Your task to perform on an android device: open app "Chime – Mobile Banking" (install if not already installed) Image 0: 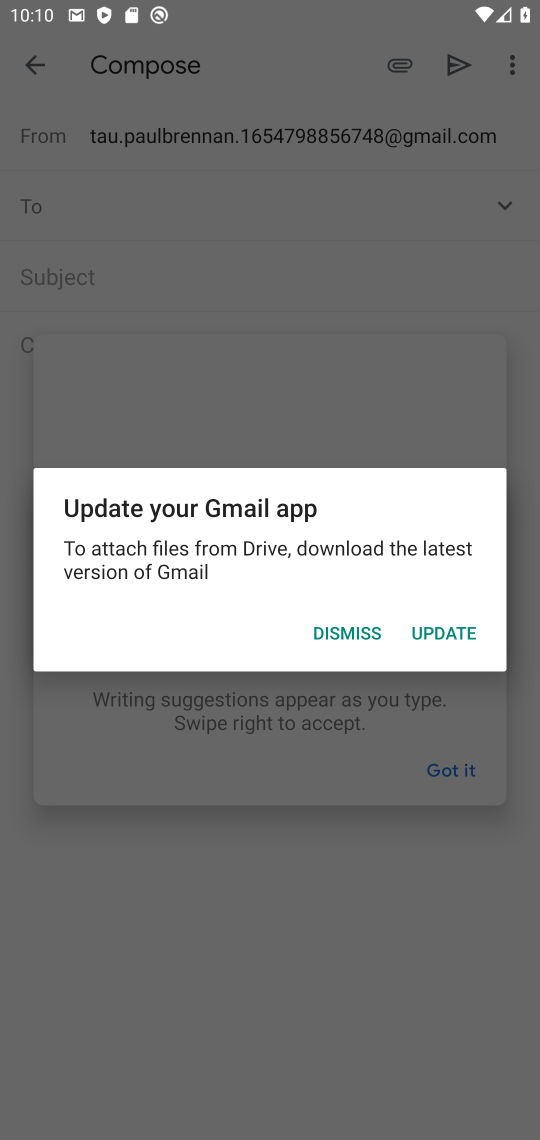
Step 0: press home button
Your task to perform on an android device: open app "Chime – Mobile Banking" (install if not already installed) Image 1: 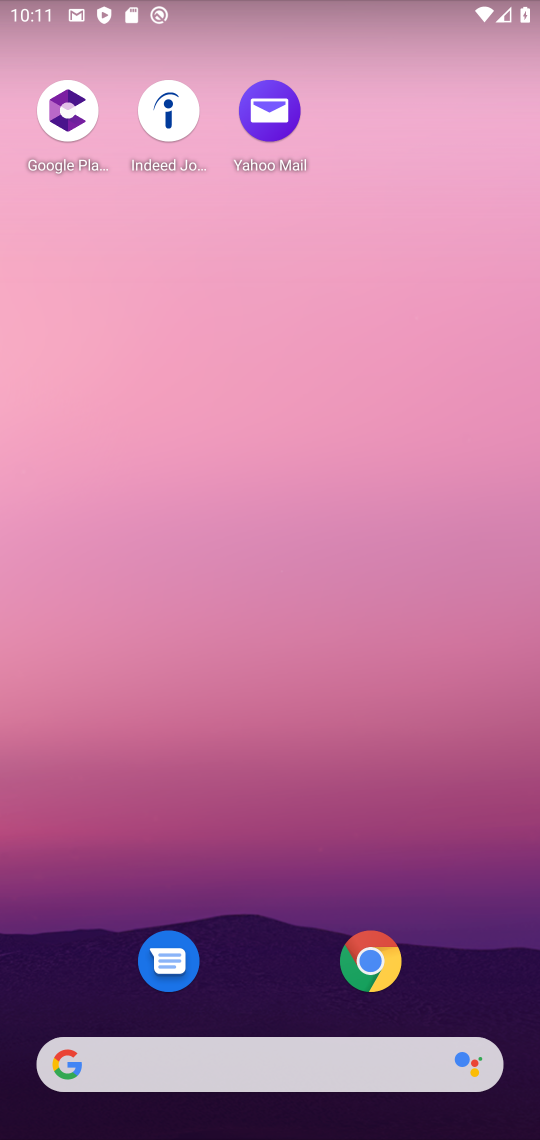
Step 1: drag from (246, 1071) to (245, 274)
Your task to perform on an android device: open app "Chime – Mobile Banking" (install if not already installed) Image 2: 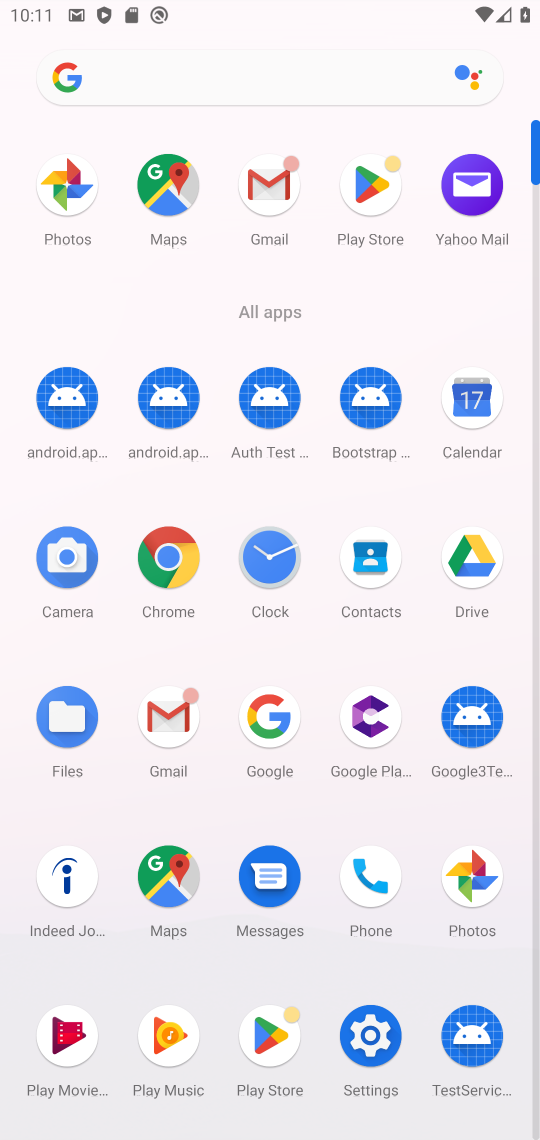
Step 2: click (280, 1027)
Your task to perform on an android device: open app "Chime – Mobile Banking" (install if not already installed) Image 3: 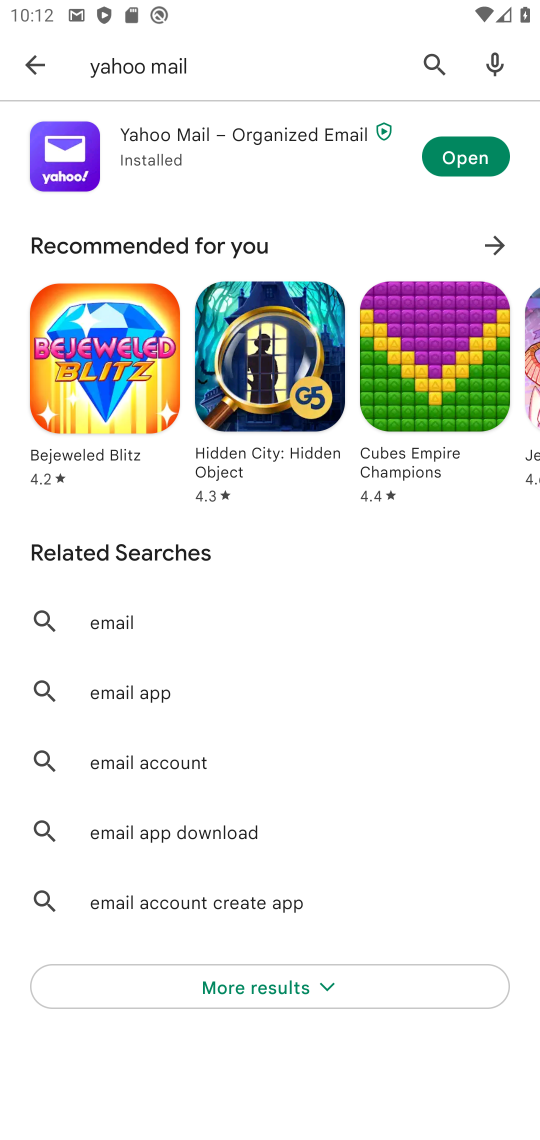
Step 3: click (428, 65)
Your task to perform on an android device: open app "Chime – Mobile Banking" (install if not already installed) Image 4: 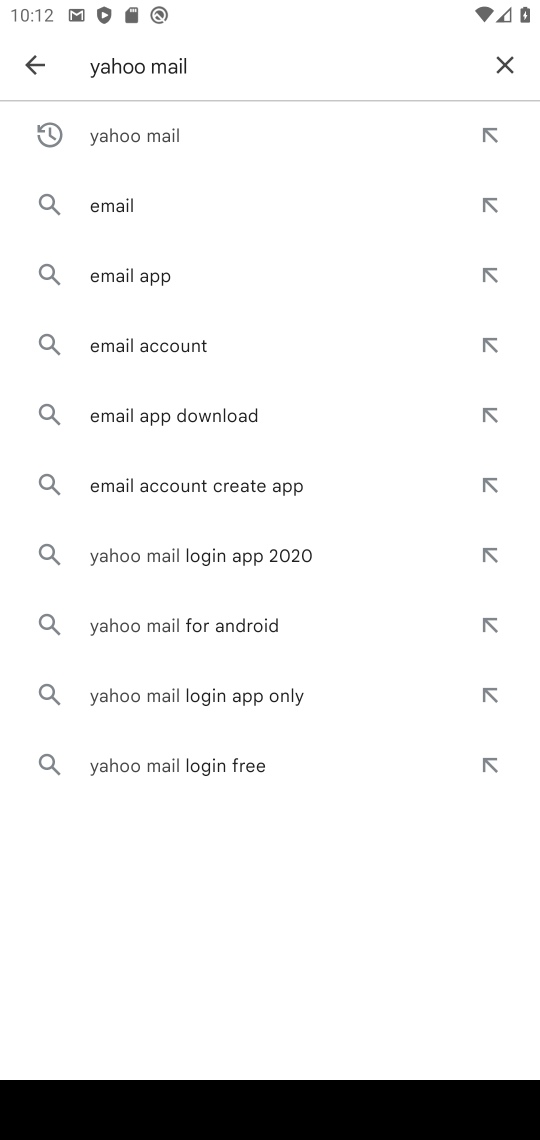
Step 4: click (511, 68)
Your task to perform on an android device: open app "Chime – Mobile Banking" (install if not already installed) Image 5: 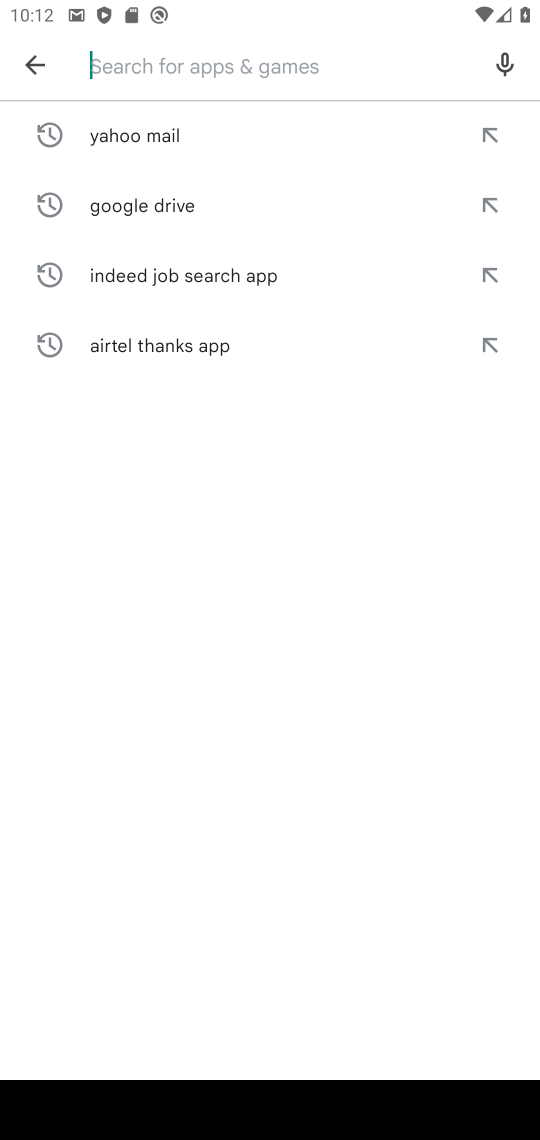
Step 5: type "chime"
Your task to perform on an android device: open app "Chime – Mobile Banking" (install if not already installed) Image 6: 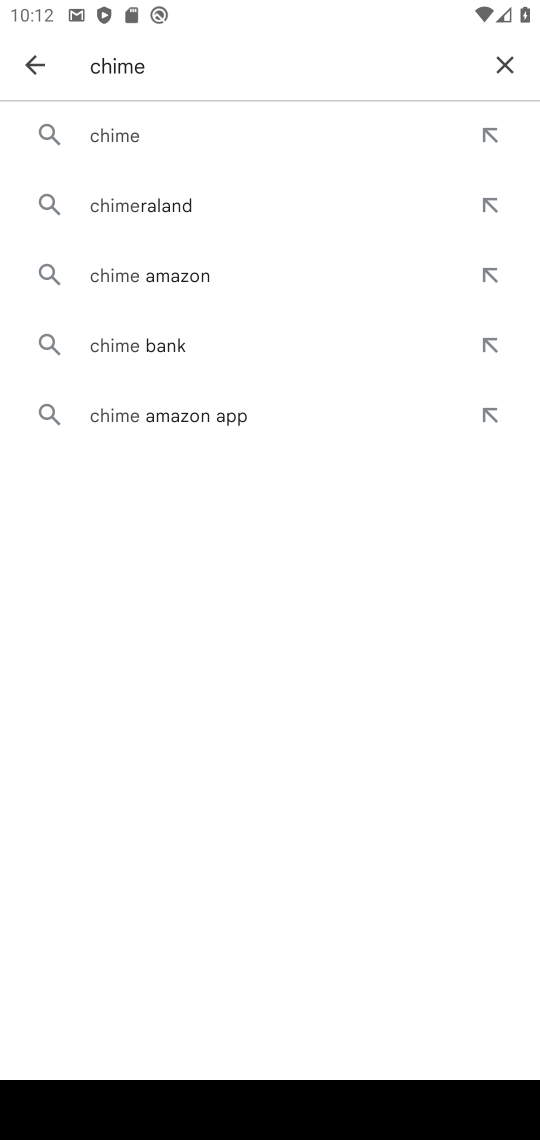
Step 6: click (126, 130)
Your task to perform on an android device: open app "Chime – Mobile Banking" (install if not already installed) Image 7: 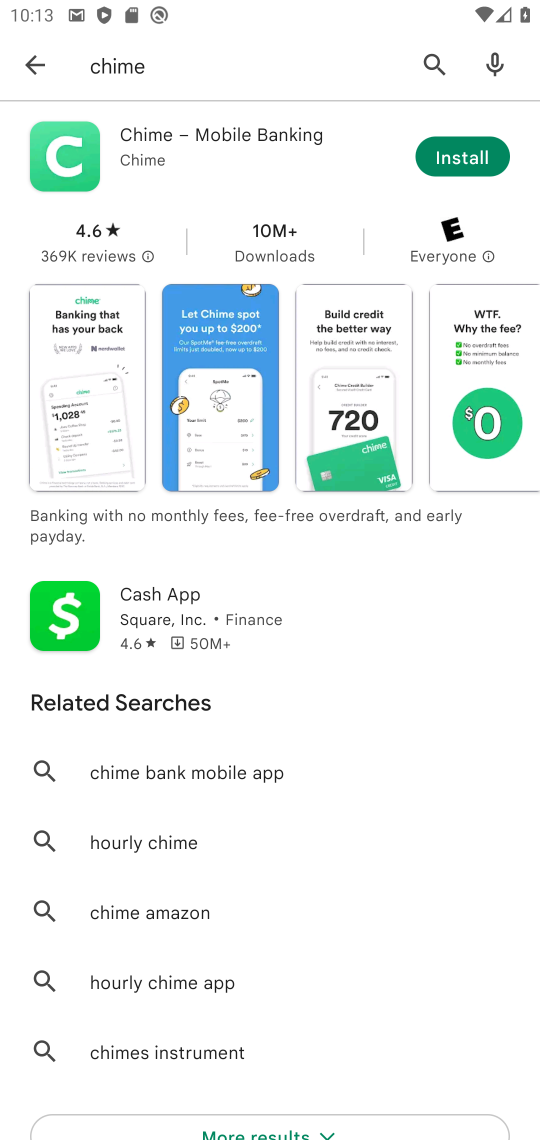
Step 7: click (421, 156)
Your task to perform on an android device: open app "Chime – Mobile Banking" (install if not already installed) Image 8: 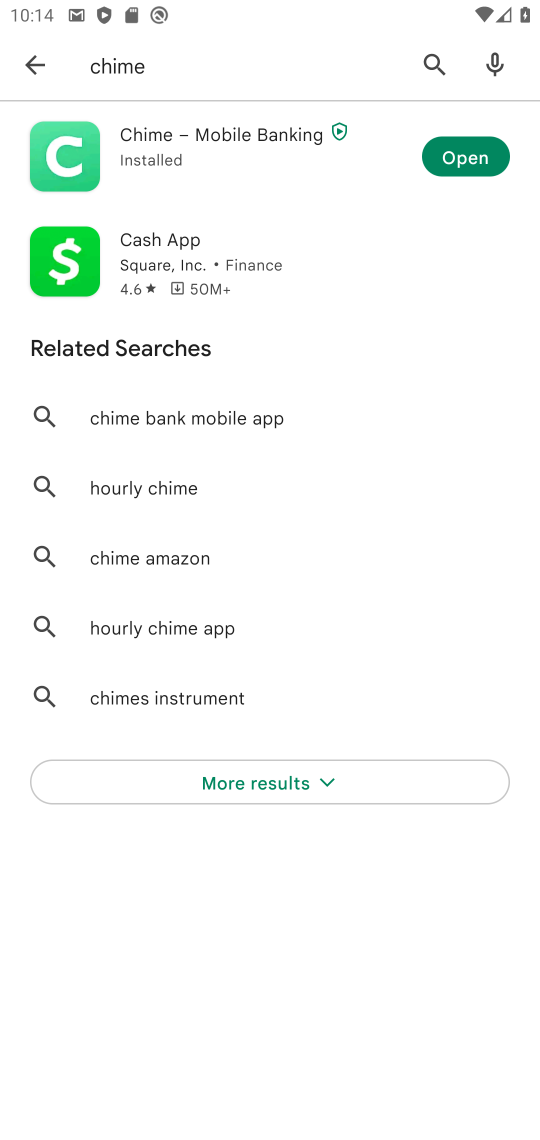
Step 8: click (495, 162)
Your task to perform on an android device: open app "Chime – Mobile Banking" (install if not already installed) Image 9: 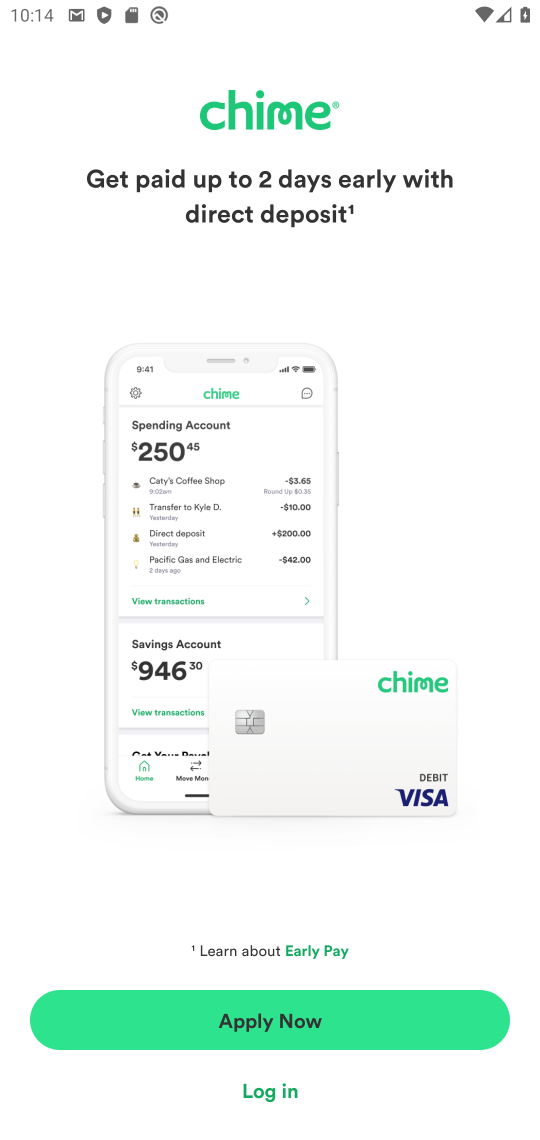
Step 9: task complete